Your task to perform on an android device: turn off airplane mode Image 0: 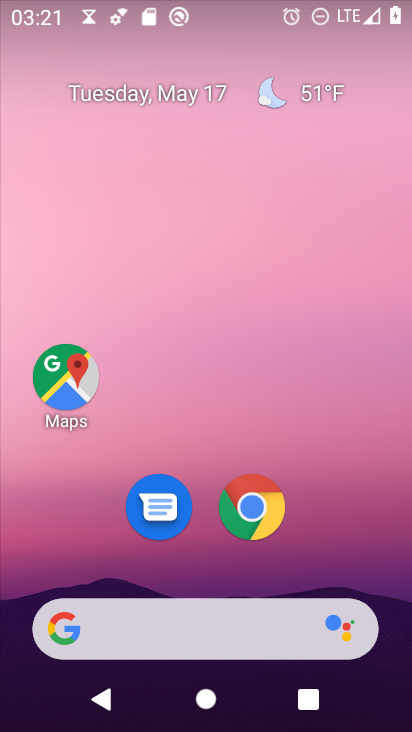
Step 0: drag from (358, 555) to (298, 22)
Your task to perform on an android device: turn off airplane mode Image 1: 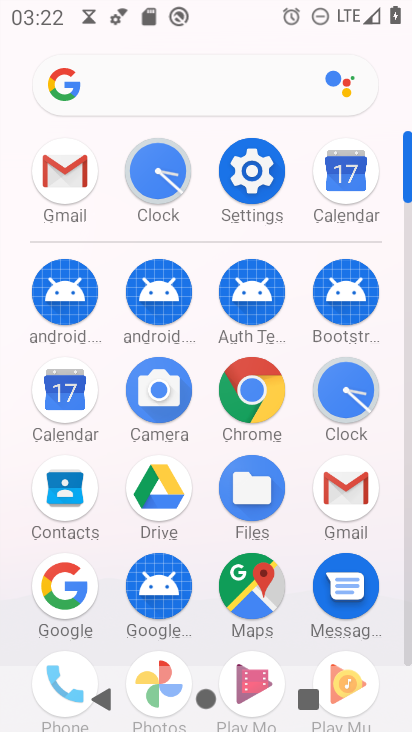
Step 1: click (255, 181)
Your task to perform on an android device: turn off airplane mode Image 2: 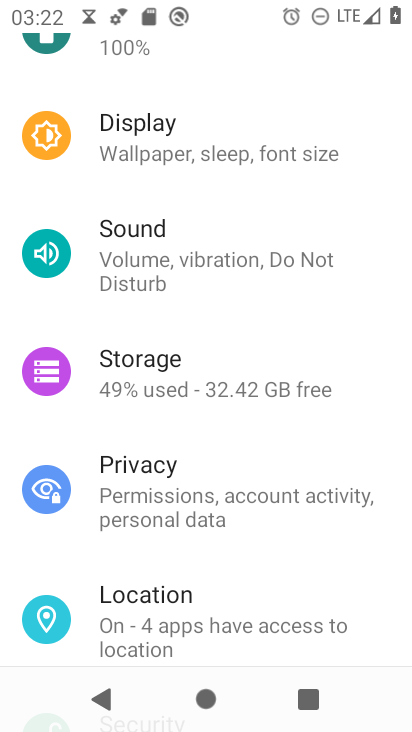
Step 2: drag from (187, 222) to (223, 403)
Your task to perform on an android device: turn off airplane mode Image 3: 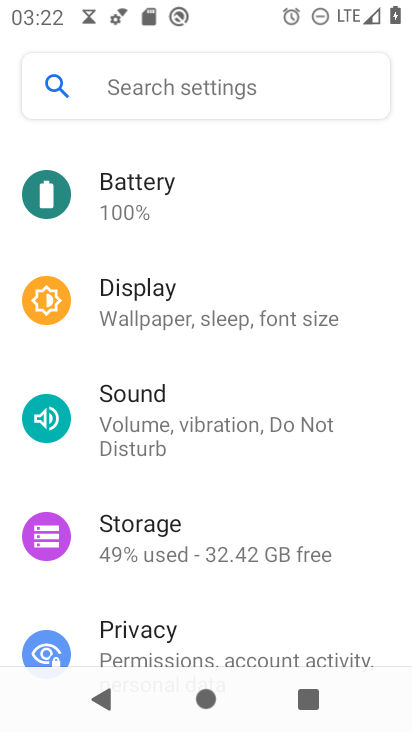
Step 3: drag from (220, 256) to (259, 412)
Your task to perform on an android device: turn off airplane mode Image 4: 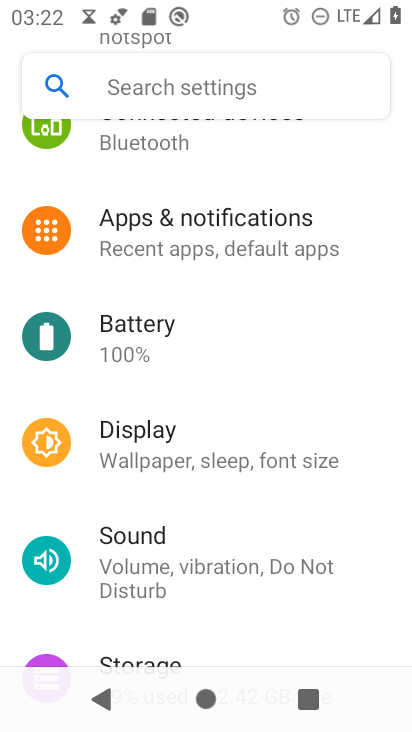
Step 4: drag from (263, 276) to (303, 495)
Your task to perform on an android device: turn off airplane mode Image 5: 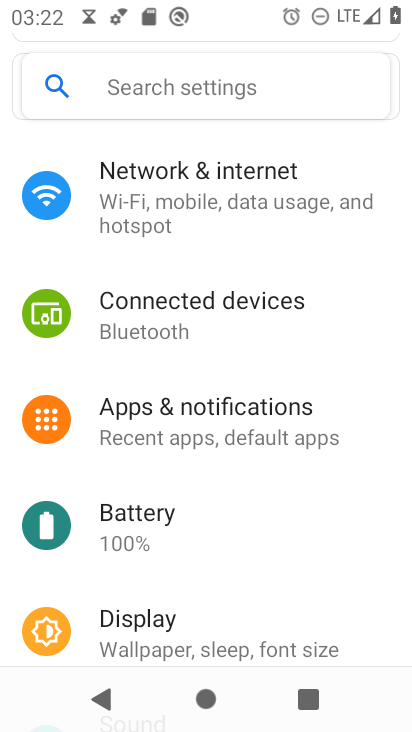
Step 5: drag from (293, 301) to (341, 546)
Your task to perform on an android device: turn off airplane mode Image 6: 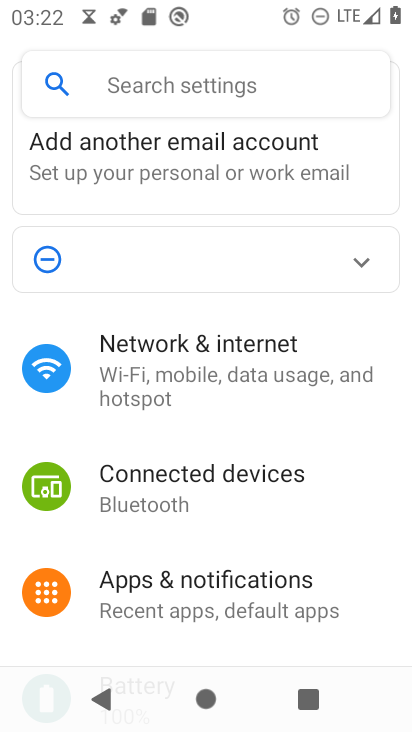
Step 6: click (311, 359)
Your task to perform on an android device: turn off airplane mode Image 7: 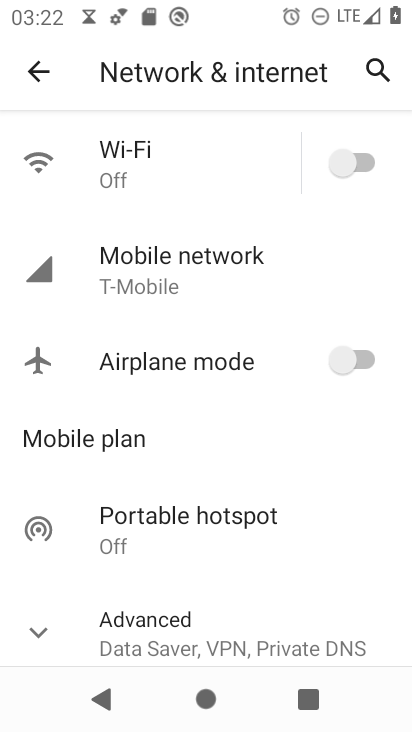
Step 7: task complete